Your task to perform on an android device: Open Google Chrome and click the shortcut for Amazon.com Image 0: 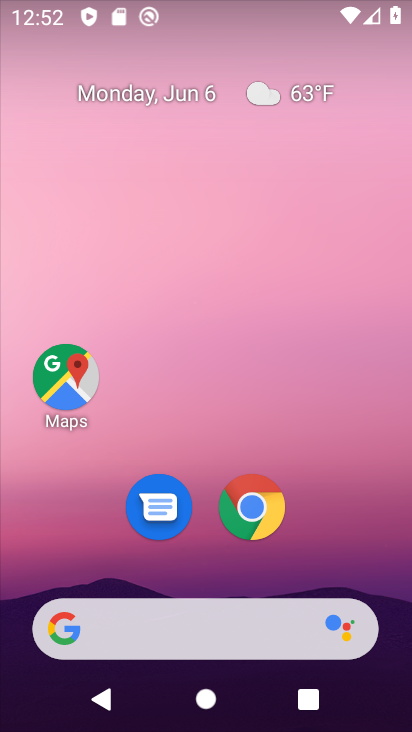
Step 0: click (252, 514)
Your task to perform on an android device: Open Google Chrome and click the shortcut for Amazon.com Image 1: 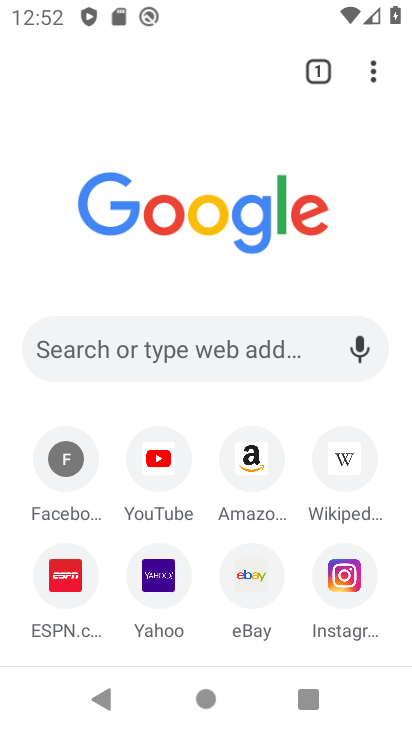
Step 1: click (254, 448)
Your task to perform on an android device: Open Google Chrome and click the shortcut for Amazon.com Image 2: 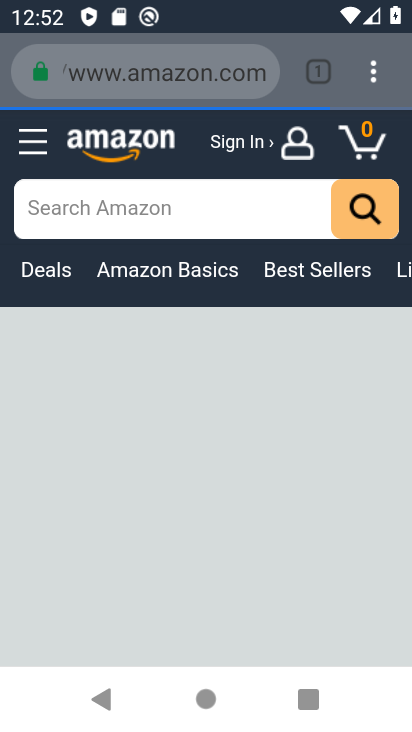
Step 2: task complete